Your task to perform on an android device: toggle priority inbox in the gmail app Image 0: 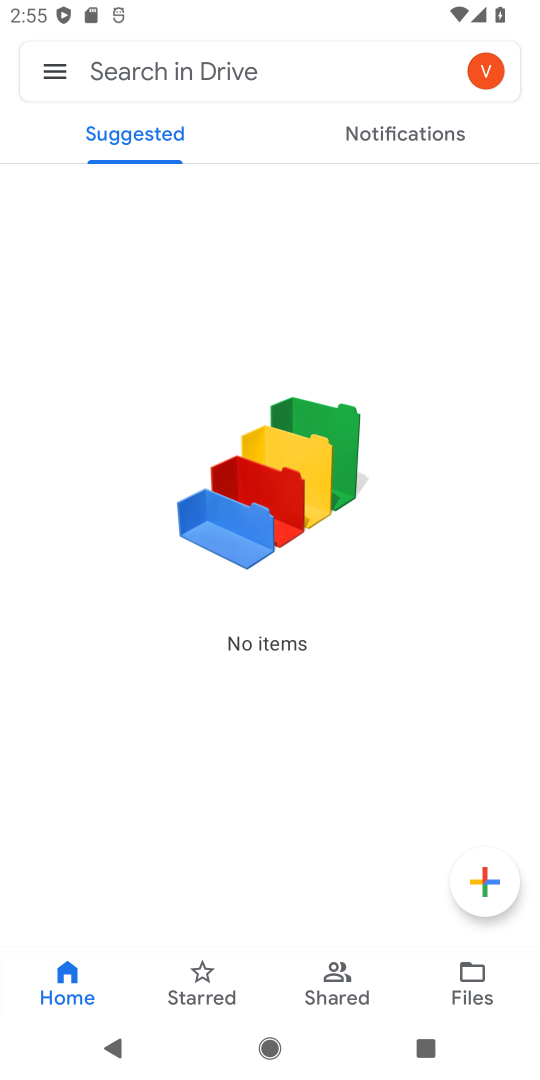
Step 0: press back button
Your task to perform on an android device: toggle priority inbox in the gmail app Image 1: 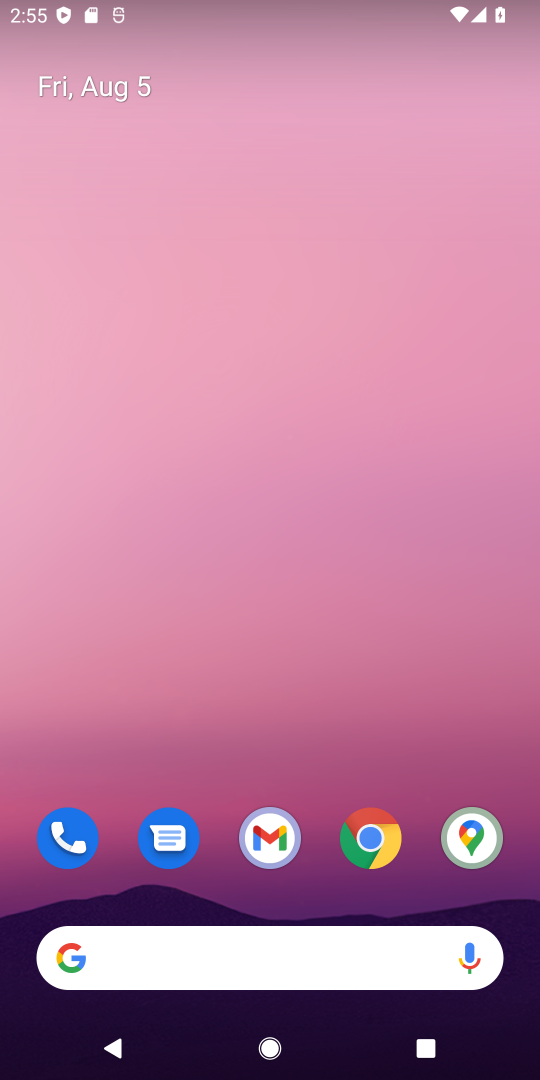
Step 1: click (273, 834)
Your task to perform on an android device: toggle priority inbox in the gmail app Image 2: 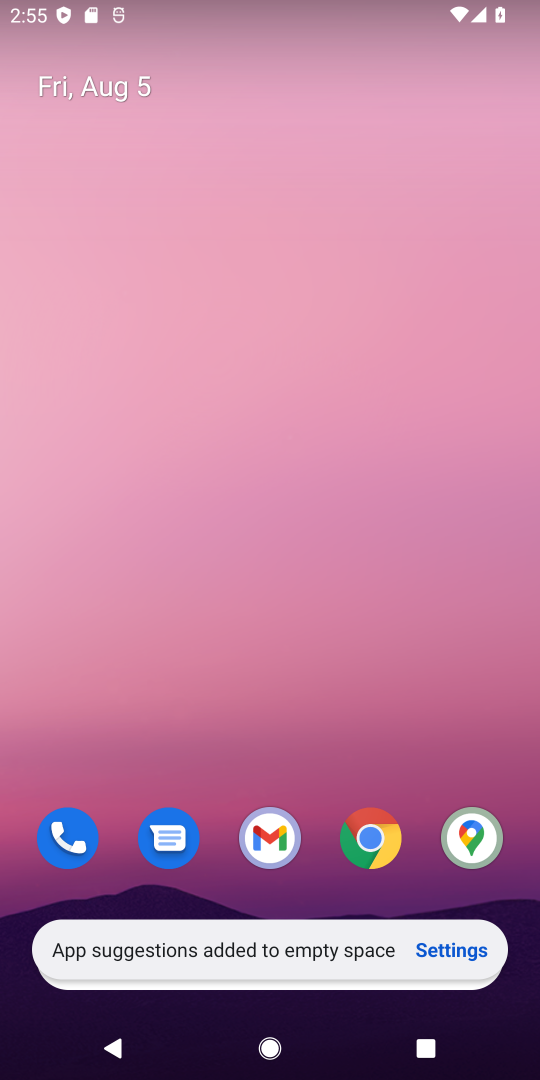
Step 2: click (271, 860)
Your task to perform on an android device: toggle priority inbox in the gmail app Image 3: 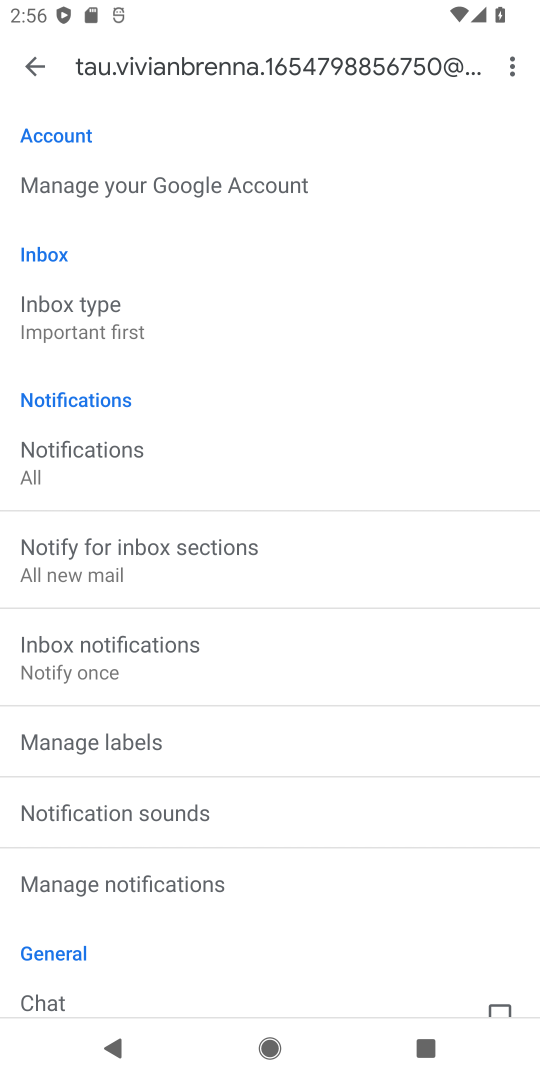
Step 3: click (26, 51)
Your task to perform on an android device: toggle priority inbox in the gmail app Image 4: 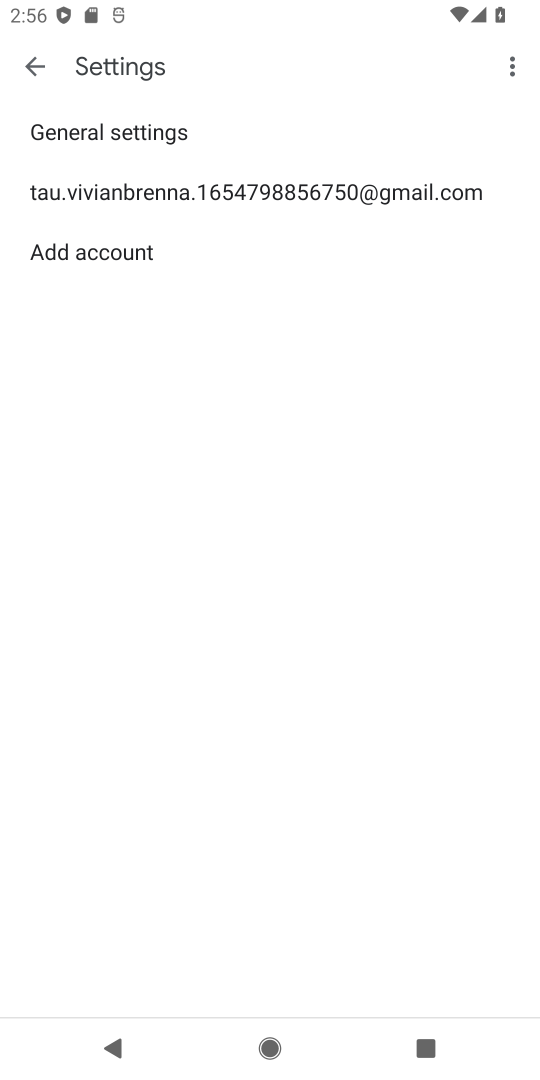
Step 4: click (26, 51)
Your task to perform on an android device: toggle priority inbox in the gmail app Image 5: 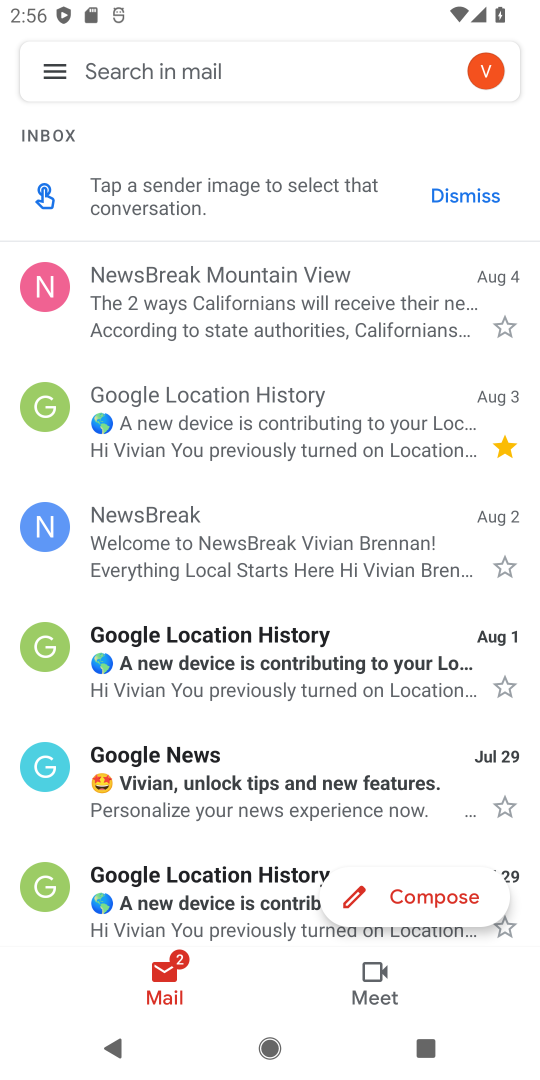
Step 5: click (54, 60)
Your task to perform on an android device: toggle priority inbox in the gmail app Image 6: 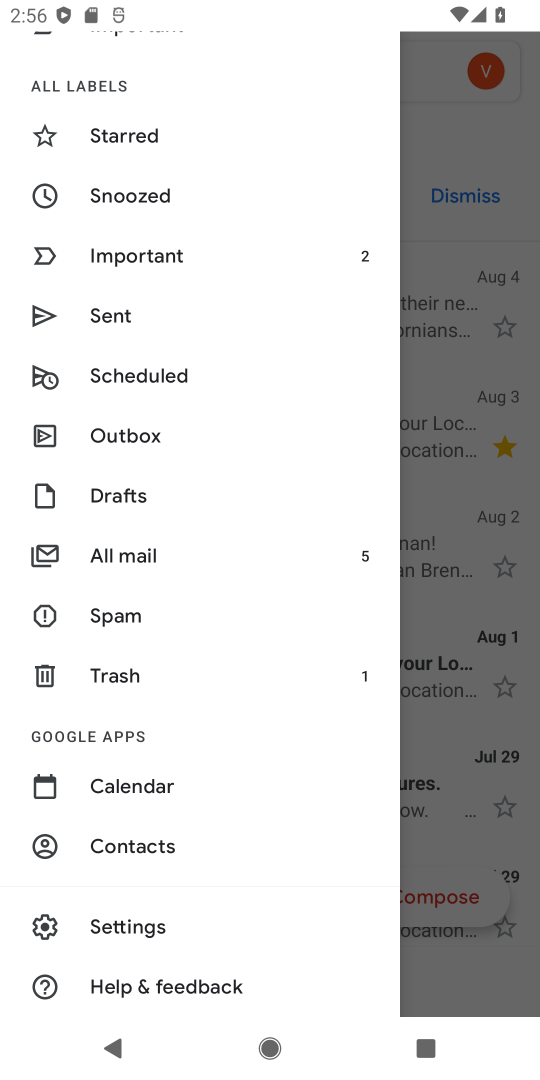
Step 6: click (126, 913)
Your task to perform on an android device: toggle priority inbox in the gmail app Image 7: 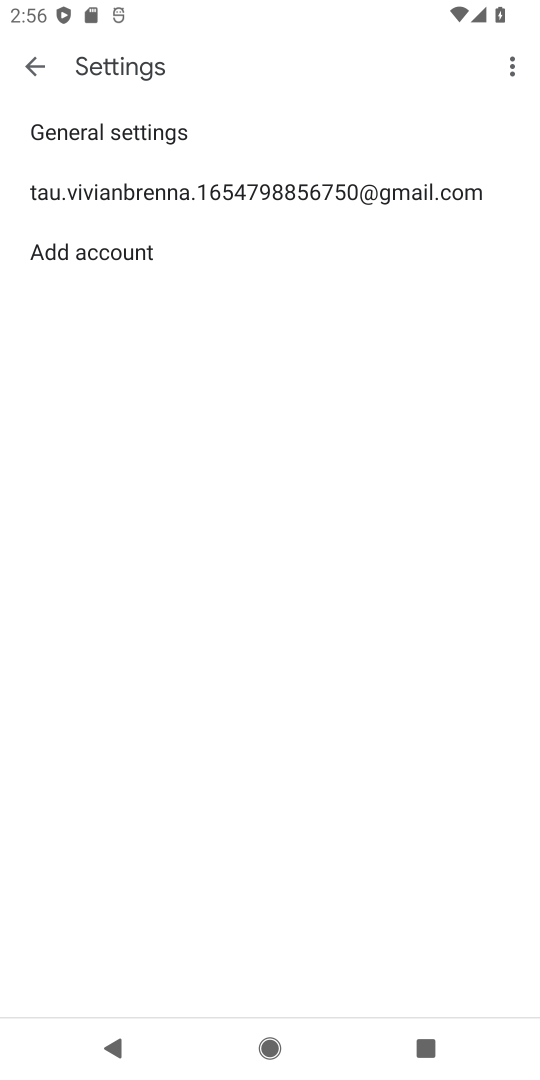
Step 7: click (174, 193)
Your task to perform on an android device: toggle priority inbox in the gmail app Image 8: 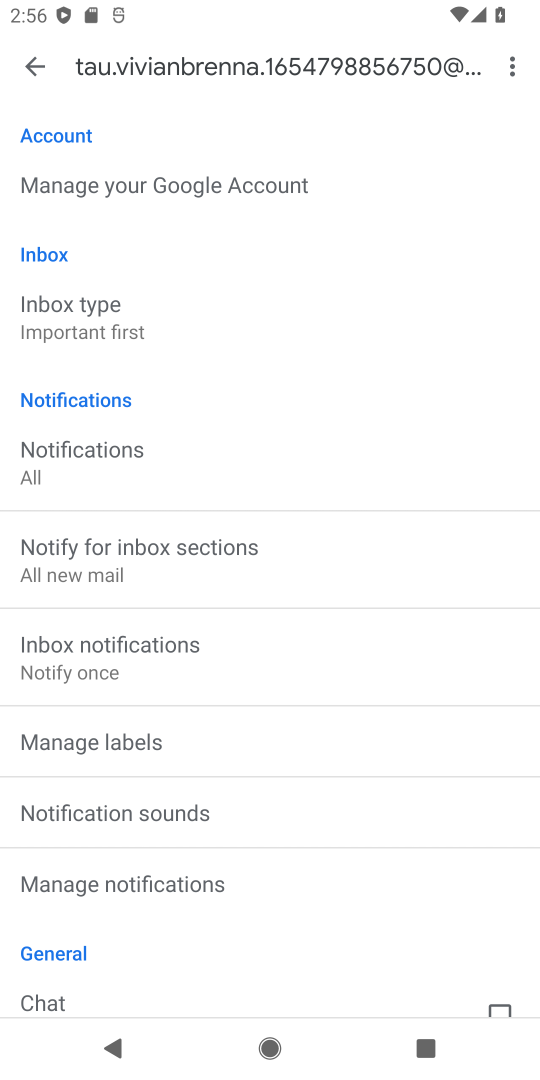
Step 8: click (212, 304)
Your task to perform on an android device: toggle priority inbox in the gmail app Image 9: 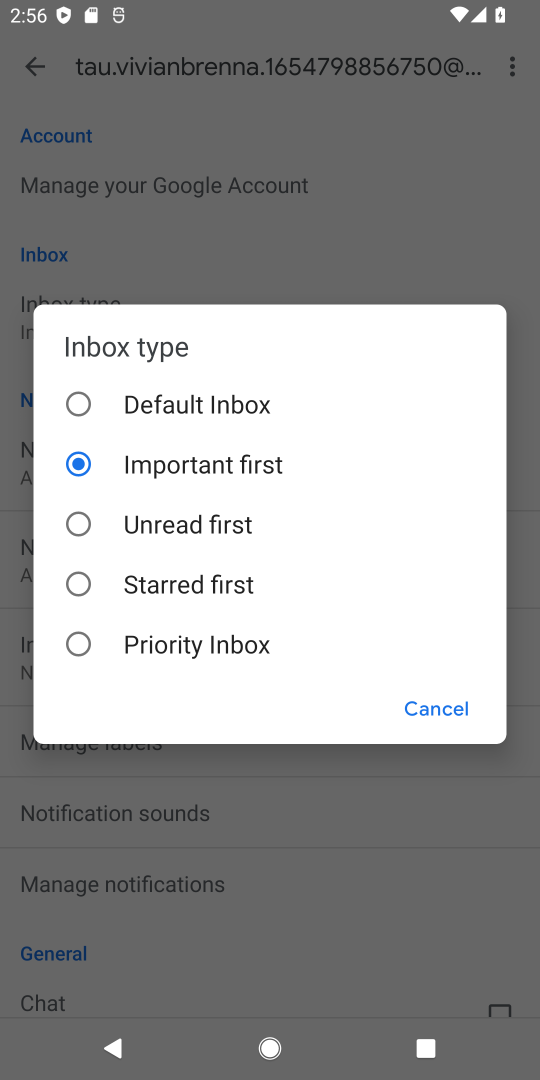
Step 9: click (209, 646)
Your task to perform on an android device: toggle priority inbox in the gmail app Image 10: 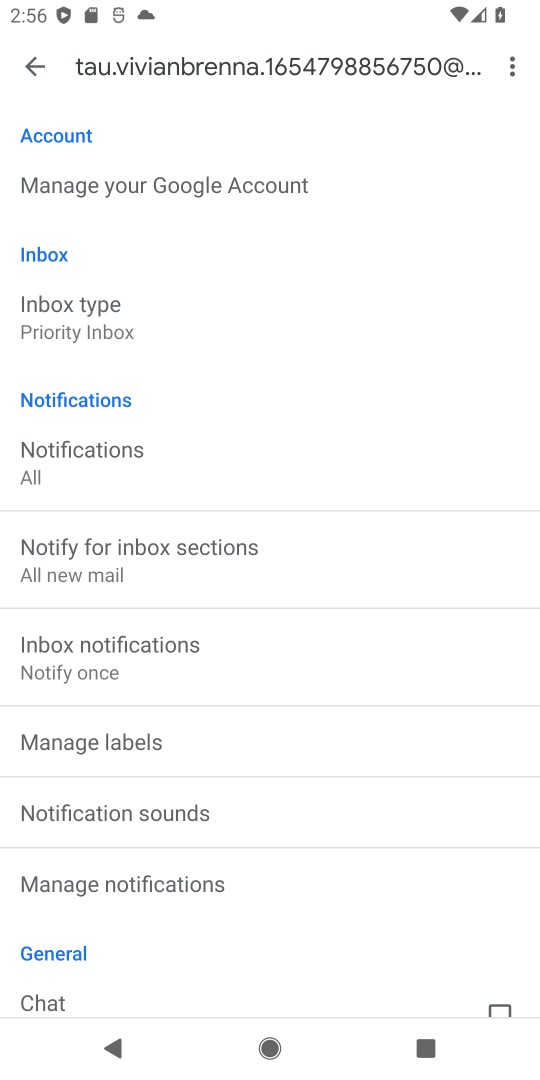
Step 10: task complete